Your task to perform on an android device: What's on my calendar tomorrow? Image 0: 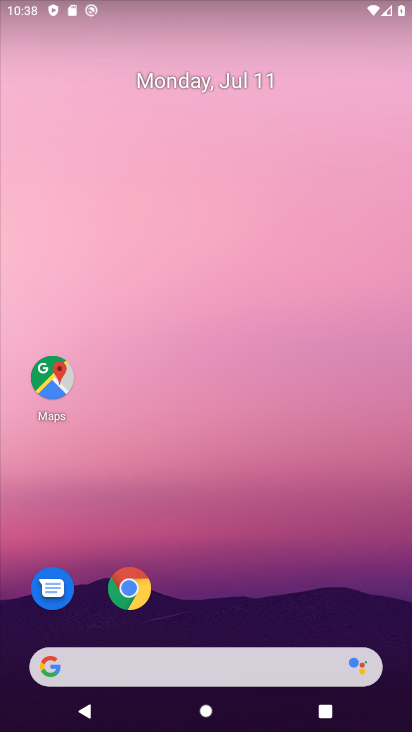
Step 0: drag from (253, 558) to (231, 112)
Your task to perform on an android device: What's on my calendar tomorrow? Image 1: 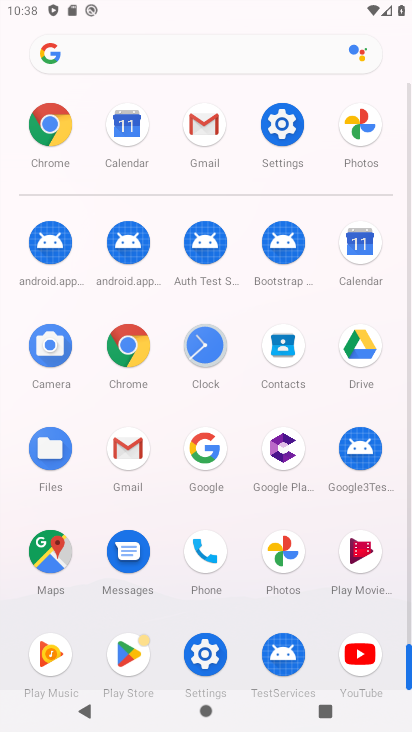
Step 1: click (357, 252)
Your task to perform on an android device: What's on my calendar tomorrow? Image 2: 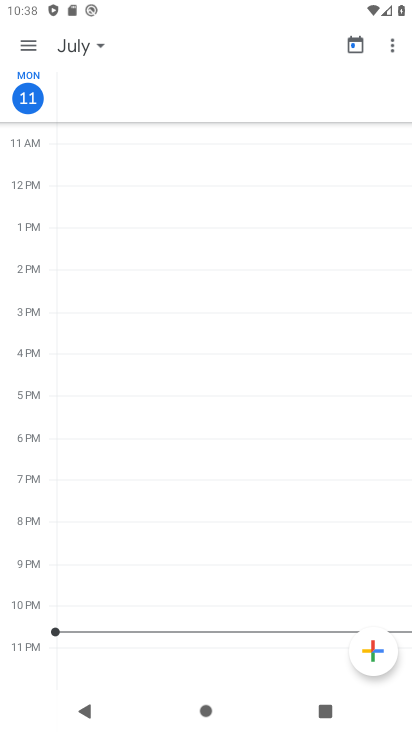
Step 2: click (107, 38)
Your task to perform on an android device: What's on my calendar tomorrow? Image 3: 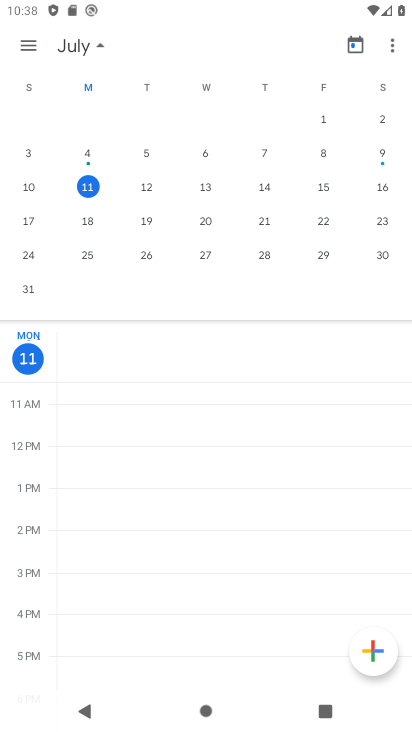
Step 3: click (147, 186)
Your task to perform on an android device: What's on my calendar tomorrow? Image 4: 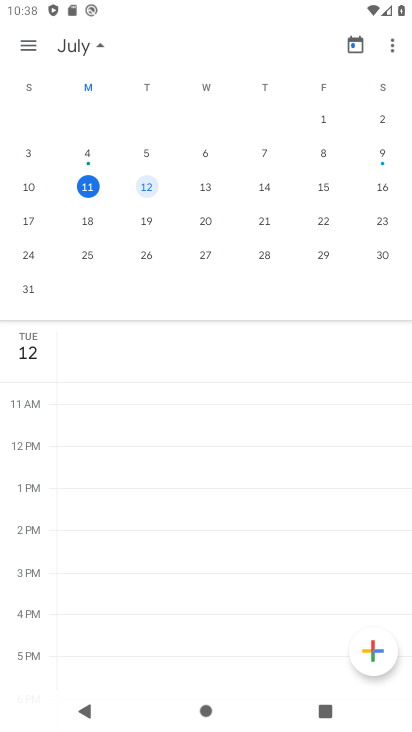
Step 4: task complete